Your task to perform on an android device: turn pop-ups on in chrome Image 0: 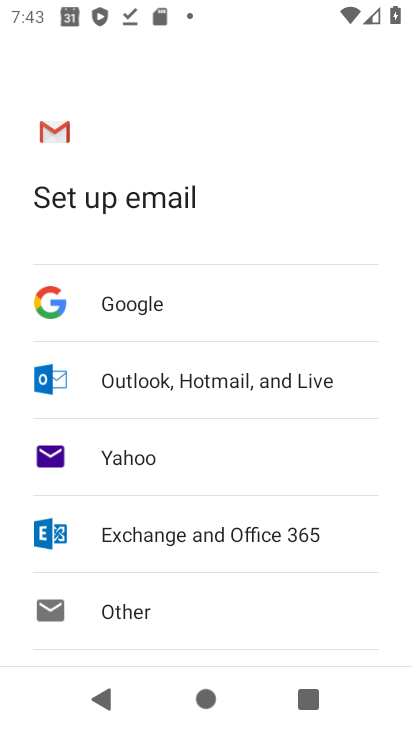
Step 0: press home button
Your task to perform on an android device: turn pop-ups on in chrome Image 1: 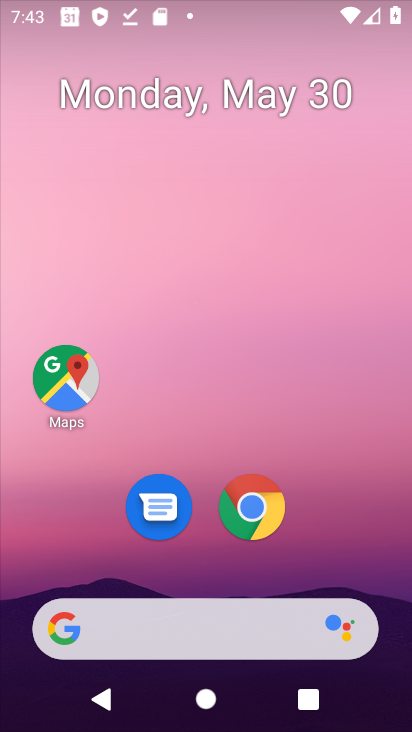
Step 1: drag from (378, 512) to (354, 181)
Your task to perform on an android device: turn pop-ups on in chrome Image 2: 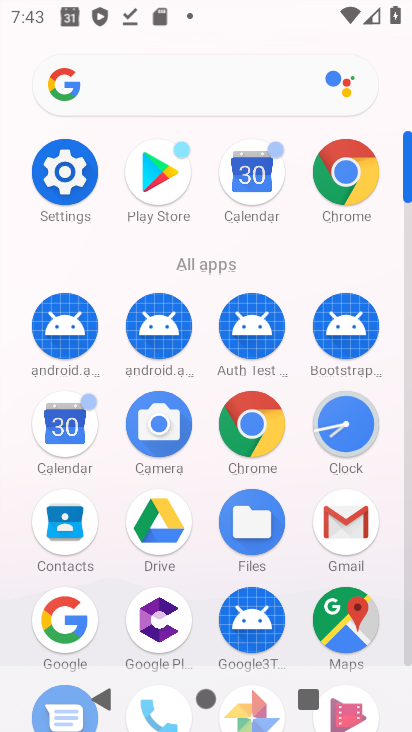
Step 2: click (355, 200)
Your task to perform on an android device: turn pop-ups on in chrome Image 3: 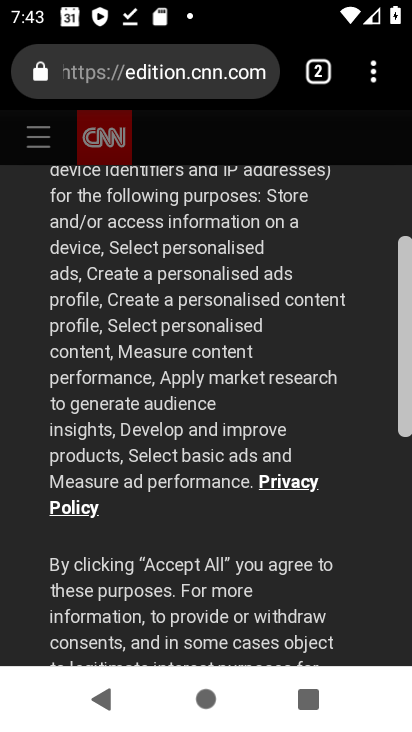
Step 3: drag from (385, 98) to (184, 486)
Your task to perform on an android device: turn pop-ups on in chrome Image 4: 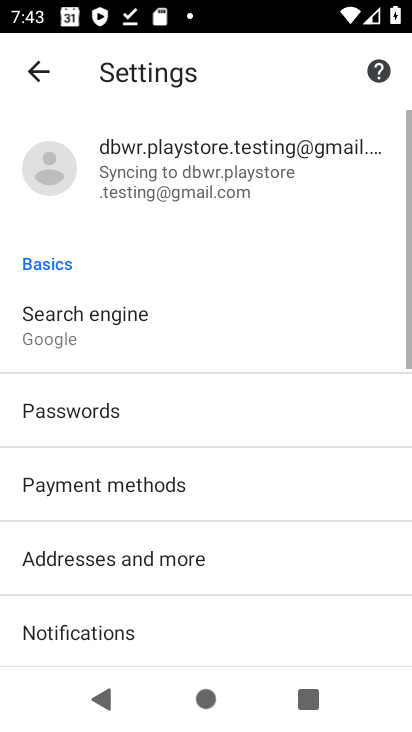
Step 4: drag from (304, 589) to (302, 380)
Your task to perform on an android device: turn pop-ups on in chrome Image 5: 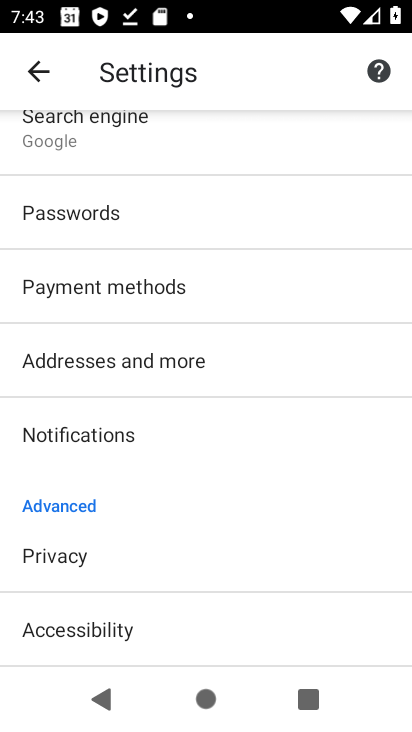
Step 5: drag from (239, 581) to (266, 405)
Your task to perform on an android device: turn pop-ups on in chrome Image 6: 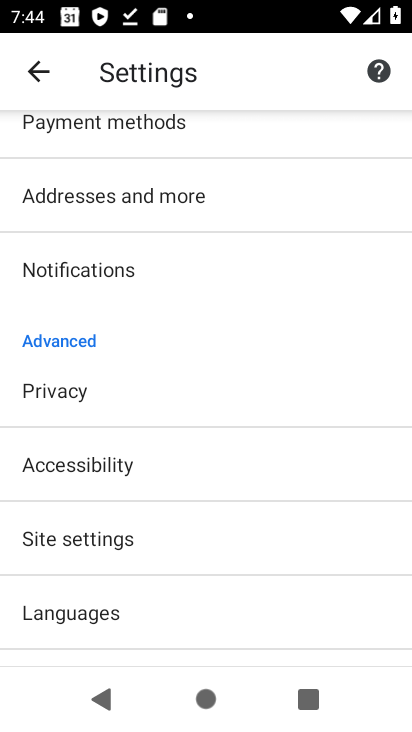
Step 6: click (208, 526)
Your task to perform on an android device: turn pop-ups on in chrome Image 7: 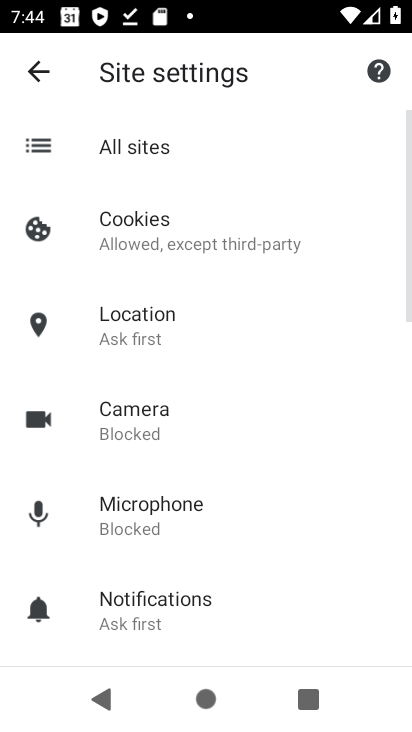
Step 7: drag from (214, 569) to (237, 294)
Your task to perform on an android device: turn pop-ups on in chrome Image 8: 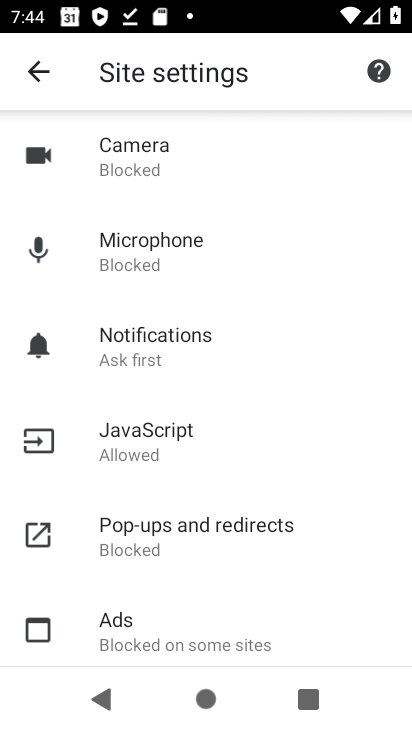
Step 8: click (291, 531)
Your task to perform on an android device: turn pop-ups on in chrome Image 9: 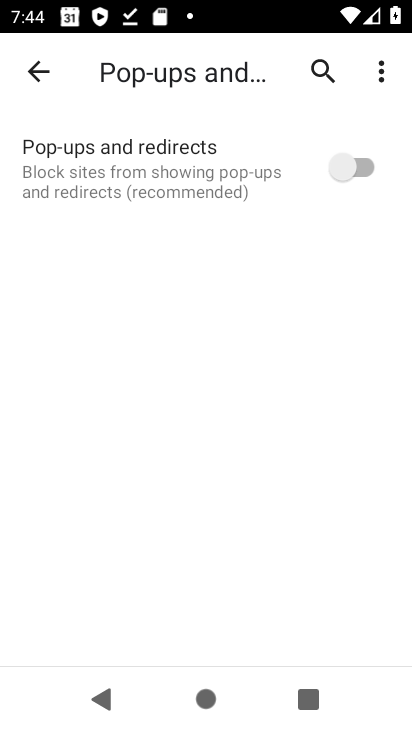
Step 9: click (370, 172)
Your task to perform on an android device: turn pop-ups on in chrome Image 10: 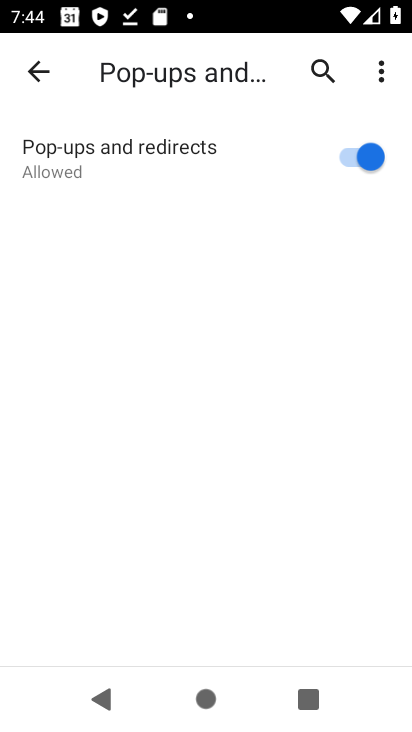
Step 10: task complete